Your task to perform on an android device: turn on bluetooth scan Image 0: 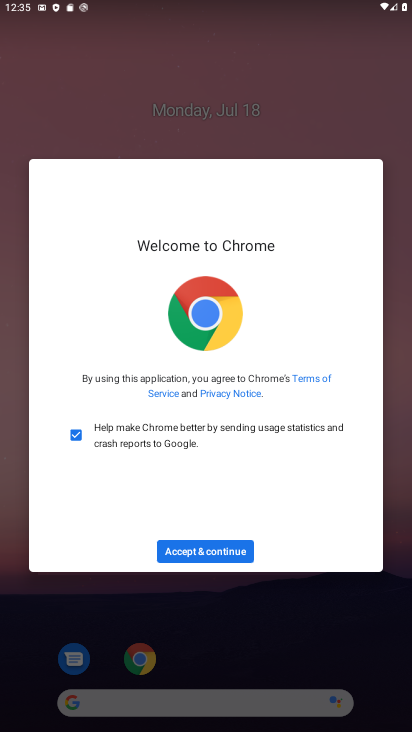
Step 0: press home button
Your task to perform on an android device: turn on bluetooth scan Image 1: 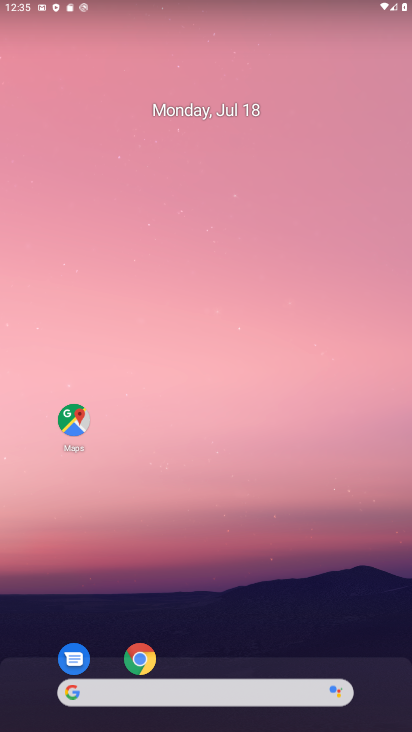
Step 1: drag from (193, 462) to (187, 150)
Your task to perform on an android device: turn on bluetooth scan Image 2: 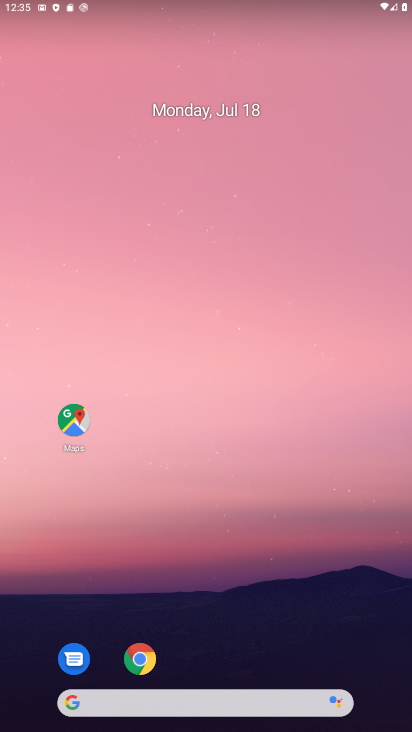
Step 2: drag from (212, 689) to (240, 158)
Your task to perform on an android device: turn on bluetooth scan Image 3: 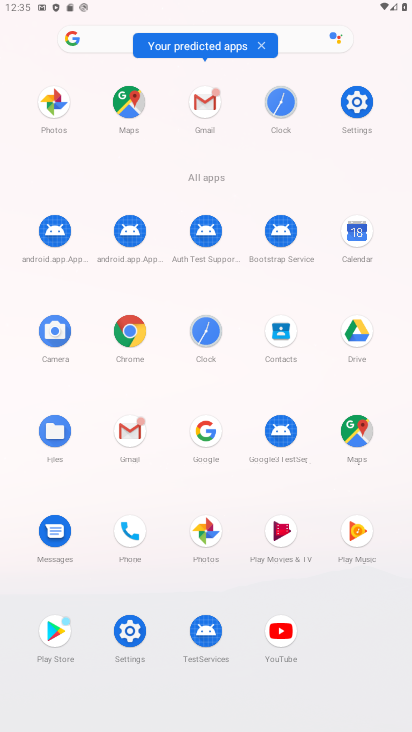
Step 3: click (353, 103)
Your task to perform on an android device: turn on bluetooth scan Image 4: 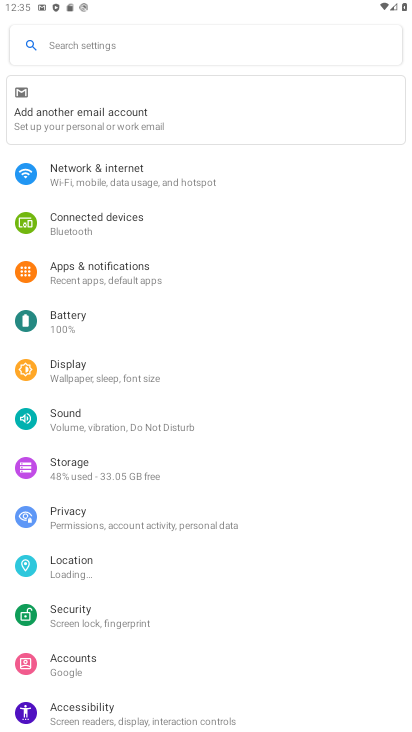
Step 4: click (77, 573)
Your task to perform on an android device: turn on bluetooth scan Image 5: 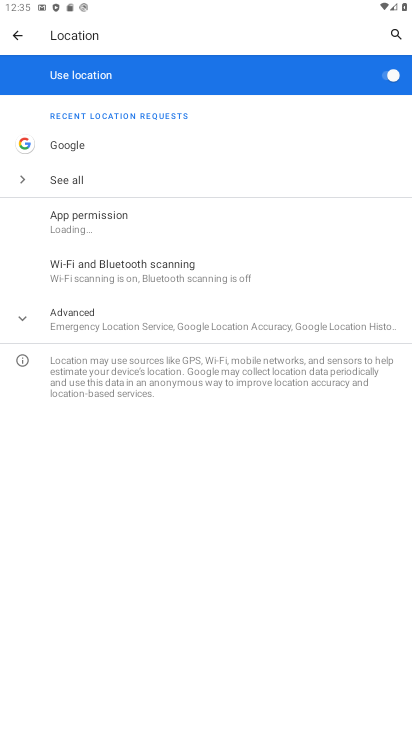
Step 5: click (94, 313)
Your task to perform on an android device: turn on bluetooth scan Image 6: 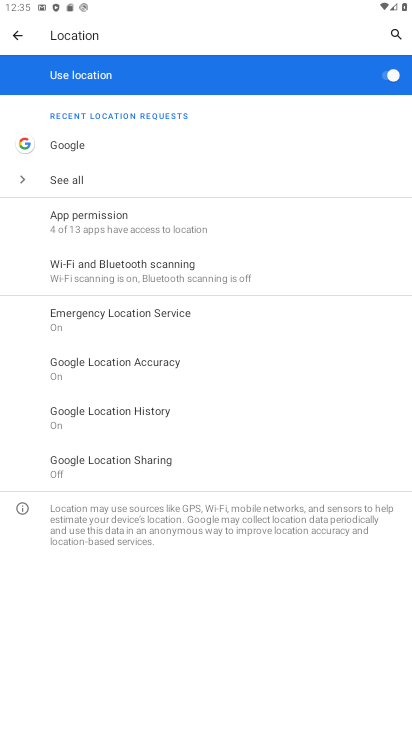
Step 6: click (127, 250)
Your task to perform on an android device: turn on bluetooth scan Image 7: 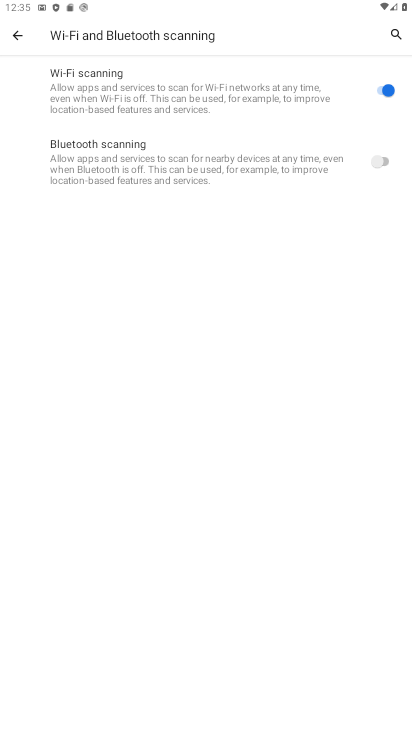
Step 7: click (382, 162)
Your task to perform on an android device: turn on bluetooth scan Image 8: 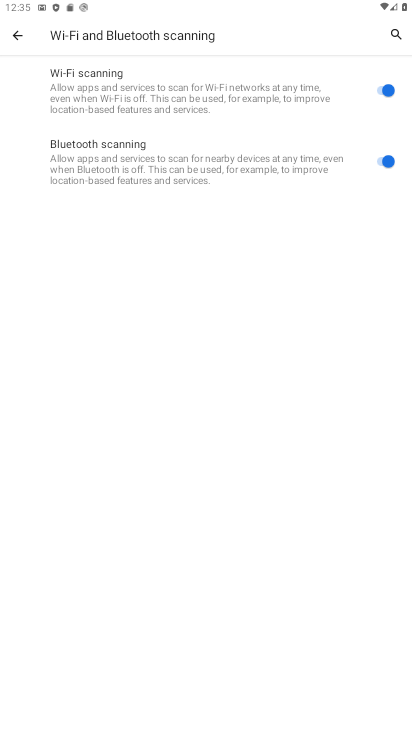
Step 8: task complete